Your task to perform on an android device: Open Chrome and go to settings Image 0: 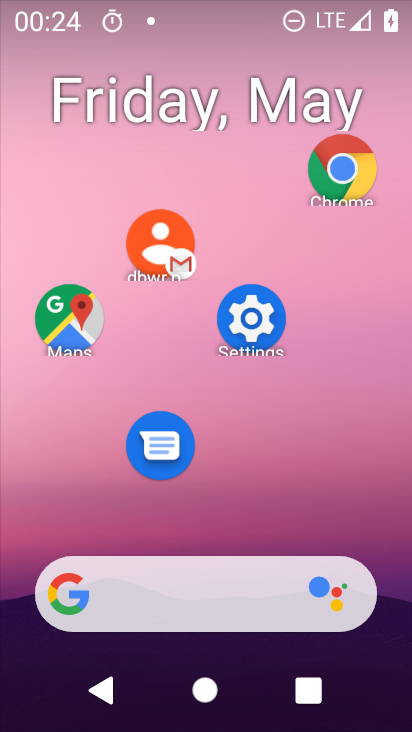
Step 0: drag from (210, 507) to (201, 0)
Your task to perform on an android device: Open Chrome and go to settings Image 1: 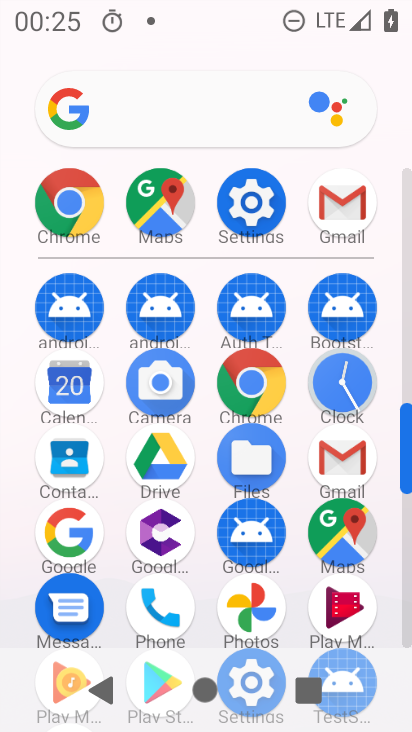
Step 1: click (345, 164)
Your task to perform on an android device: Open Chrome and go to settings Image 2: 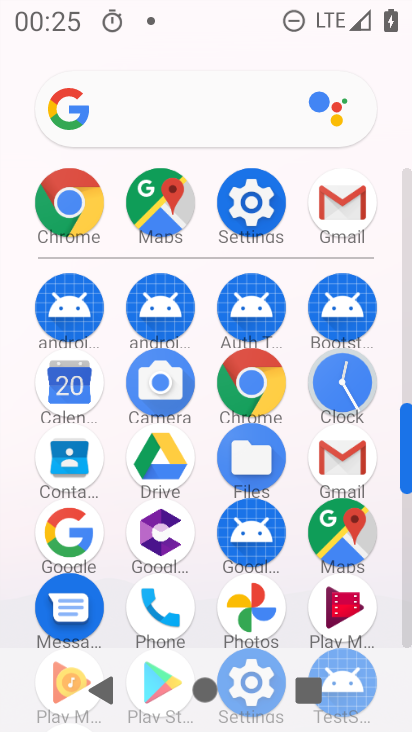
Step 2: click (248, 380)
Your task to perform on an android device: Open Chrome and go to settings Image 3: 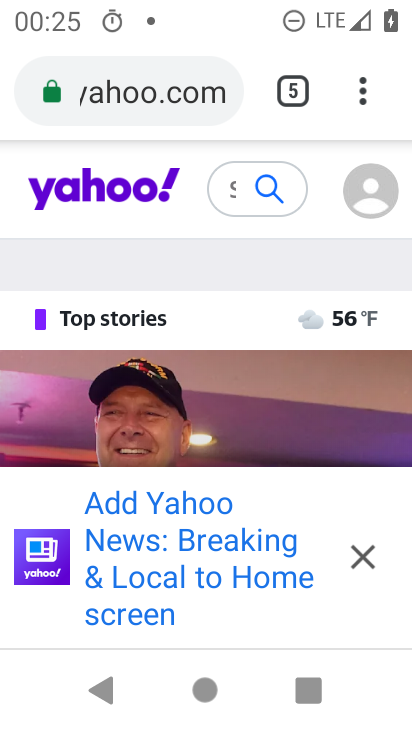
Step 3: click (356, 97)
Your task to perform on an android device: Open Chrome and go to settings Image 4: 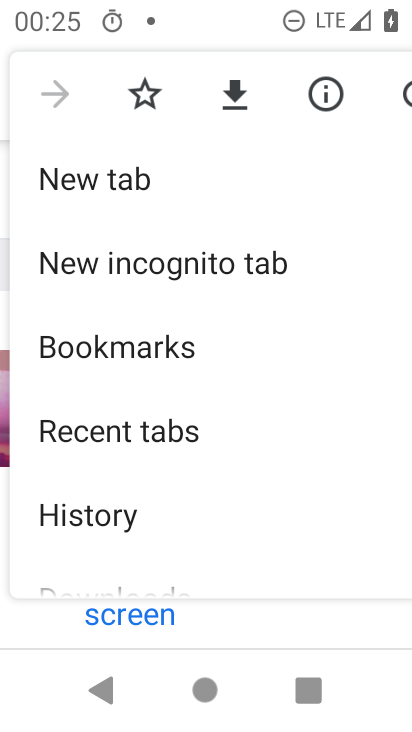
Step 4: drag from (228, 487) to (298, 50)
Your task to perform on an android device: Open Chrome and go to settings Image 5: 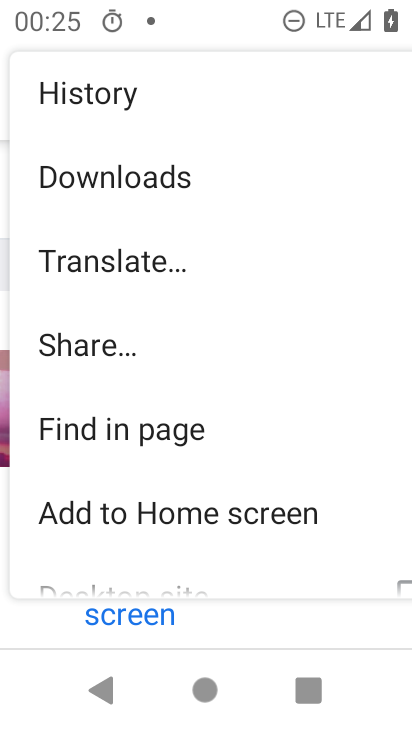
Step 5: drag from (151, 536) to (263, 108)
Your task to perform on an android device: Open Chrome and go to settings Image 6: 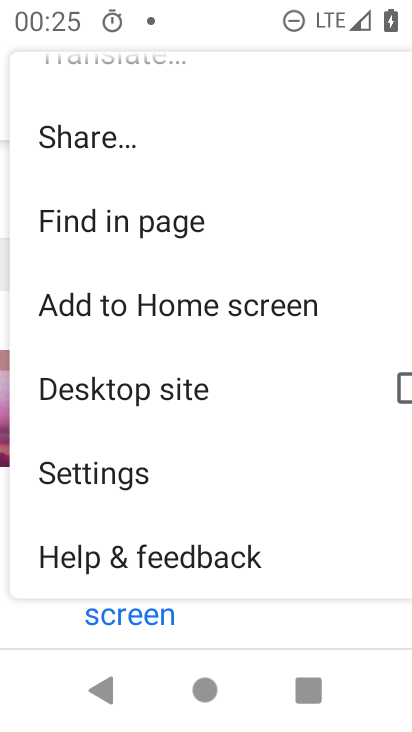
Step 6: click (154, 490)
Your task to perform on an android device: Open Chrome and go to settings Image 7: 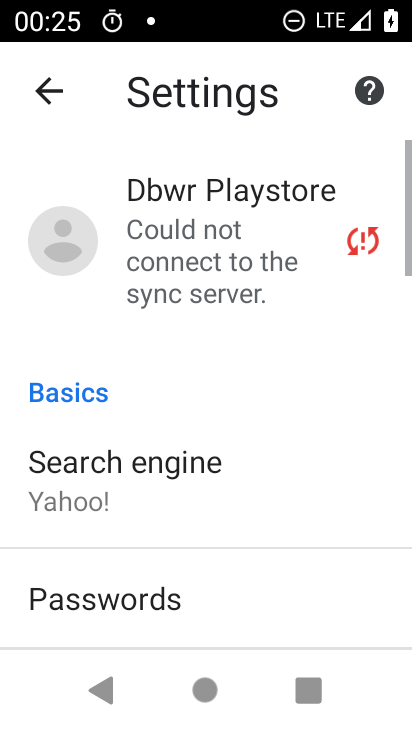
Step 7: task complete